Your task to perform on an android device: Open the calendar and show me this week's events Image 0: 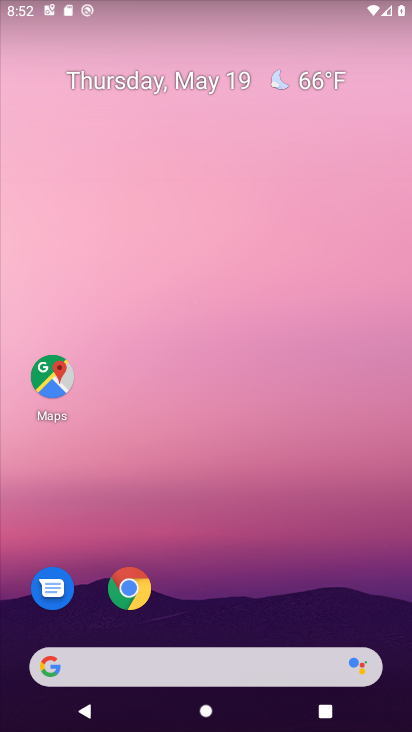
Step 0: drag from (343, 610) to (333, 231)
Your task to perform on an android device: Open the calendar and show me this week's events Image 1: 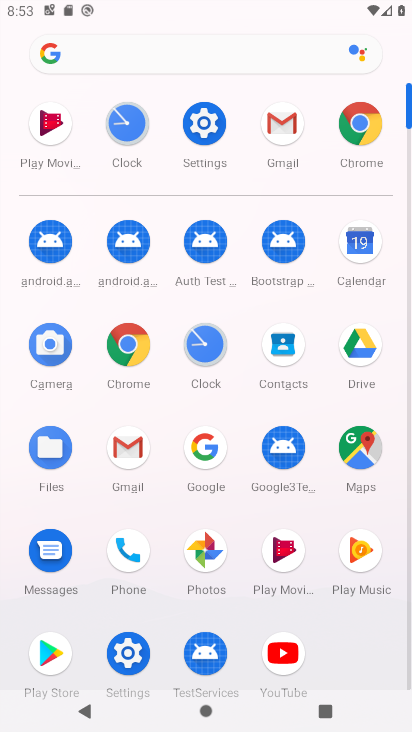
Step 1: click (356, 272)
Your task to perform on an android device: Open the calendar and show me this week's events Image 2: 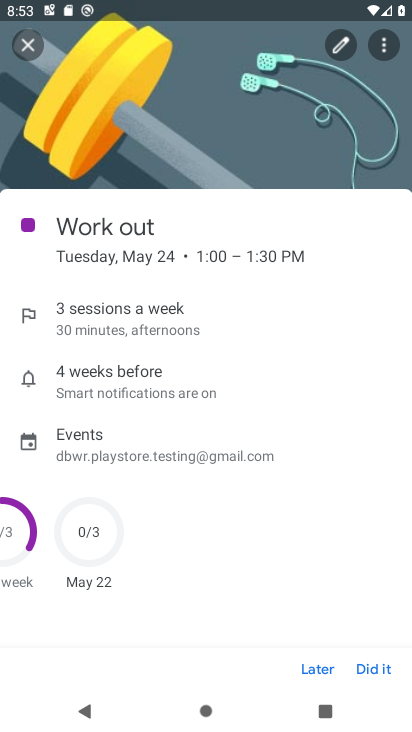
Step 2: click (22, 41)
Your task to perform on an android device: Open the calendar and show me this week's events Image 3: 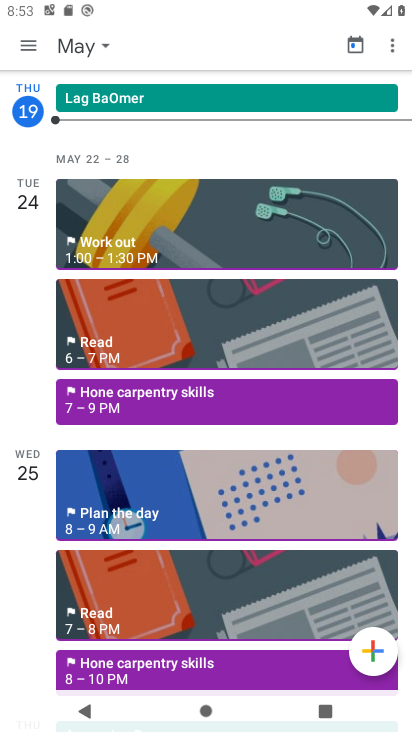
Step 3: drag from (215, 202) to (205, 356)
Your task to perform on an android device: Open the calendar and show me this week's events Image 4: 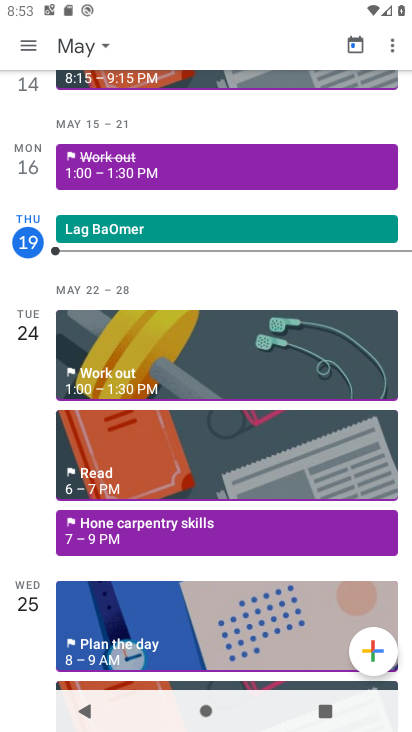
Step 4: drag from (182, 162) to (172, 332)
Your task to perform on an android device: Open the calendar and show me this week's events Image 5: 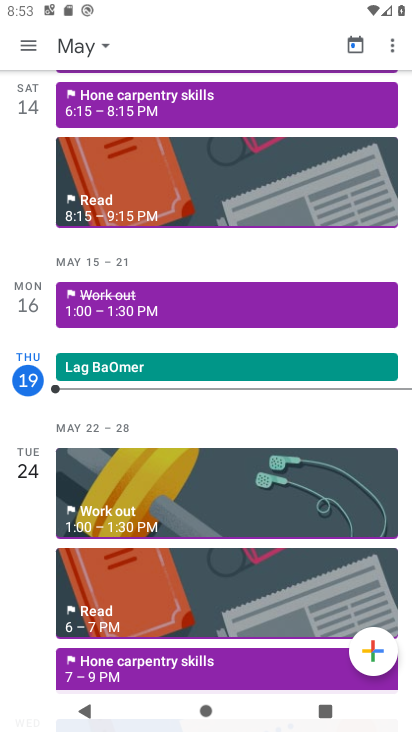
Step 5: click (108, 39)
Your task to perform on an android device: Open the calendar and show me this week's events Image 6: 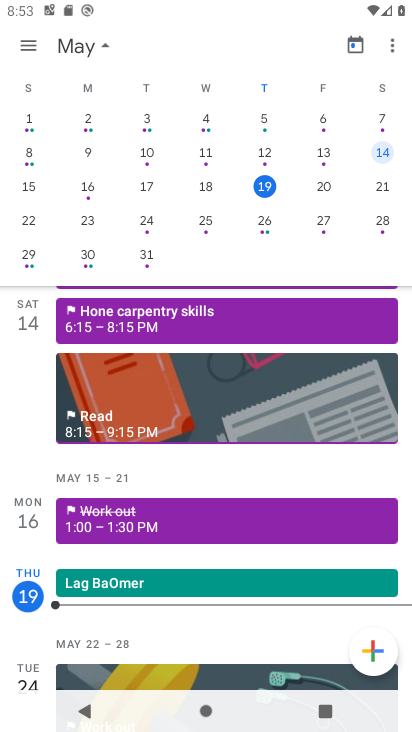
Step 6: click (327, 187)
Your task to perform on an android device: Open the calendar and show me this week's events Image 7: 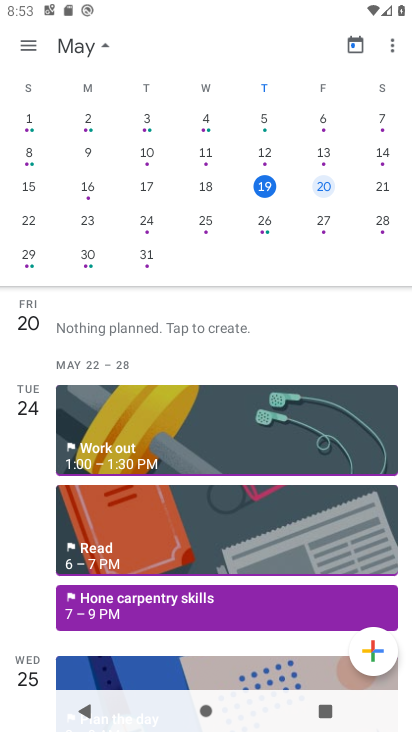
Step 7: click (300, 556)
Your task to perform on an android device: Open the calendar and show me this week's events Image 8: 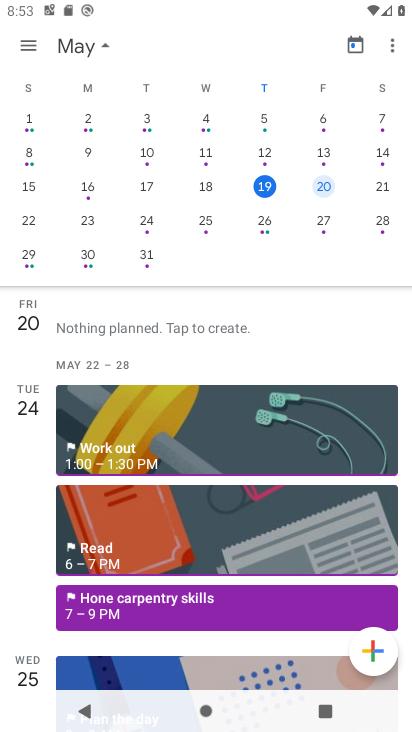
Step 8: task complete